Your task to perform on an android device: make emails show in primary in the gmail app Image 0: 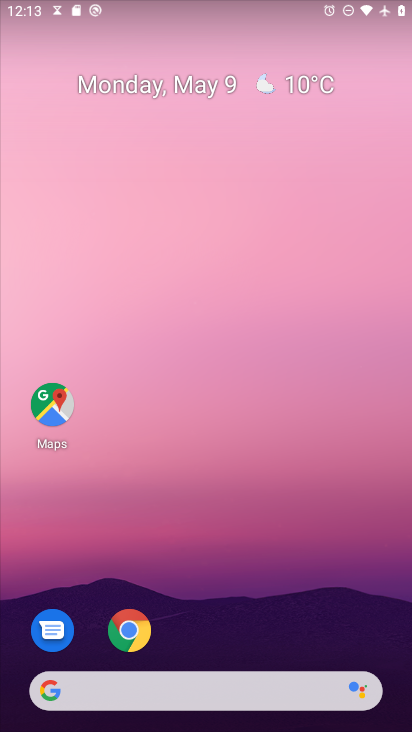
Step 0: drag from (162, 686) to (183, 200)
Your task to perform on an android device: make emails show in primary in the gmail app Image 1: 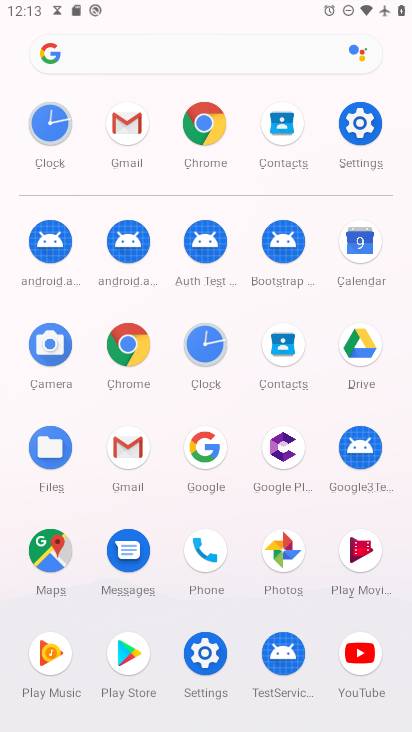
Step 1: click (131, 135)
Your task to perform on an android device: make emails show in primary in the gmail app Image 2: 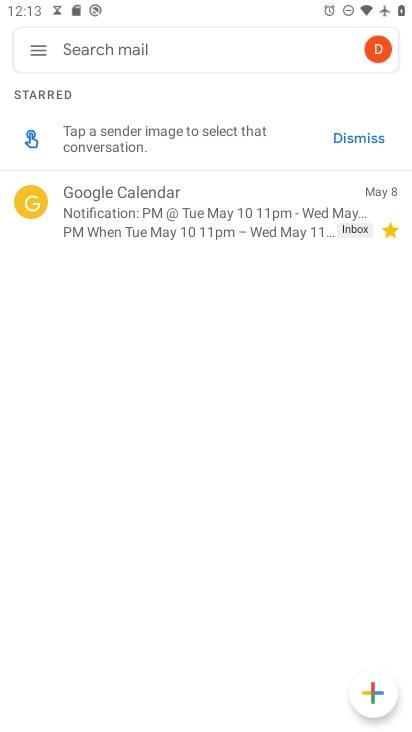
Step 2: click (40, 53)
Your task to perform on an android device: make emails show in primary in the gmail app Image 3: 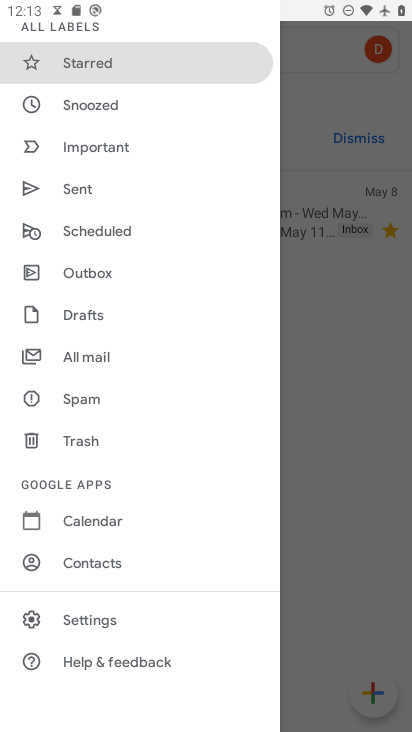
Step 3: click (106, 618)
Your task to perform on an android device: make emails show in primary in the gmail app Image 4: 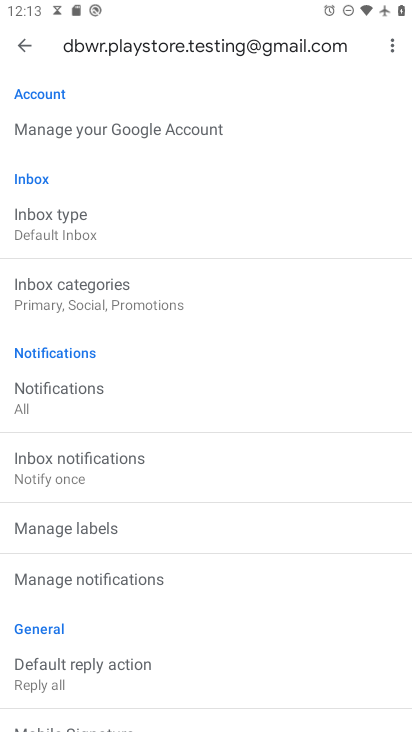
Step 4: click (34, 296)
Your task to perform on an android device: make emails show in primary in the gmail app Image 5: 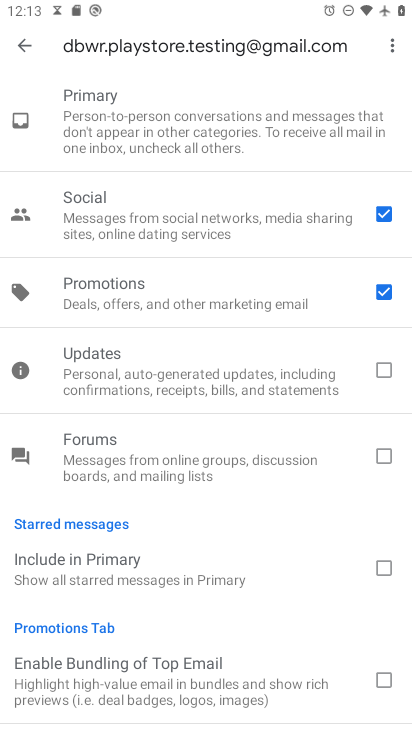
Step 5: click (380, 216)
Your task to perform on an android device: make emails show in primary in the gmail app Image 6: 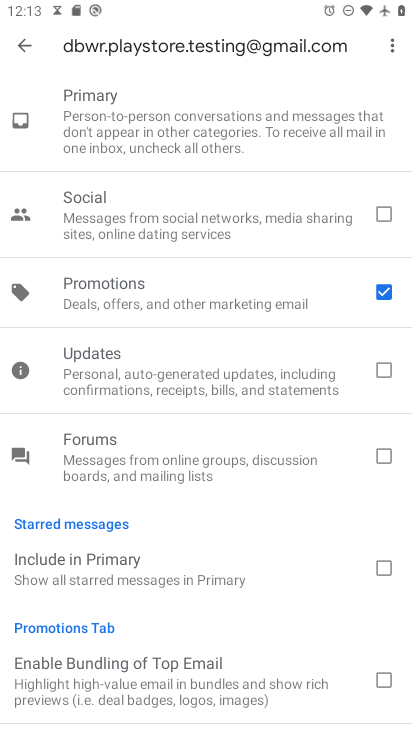
Step 6: click (377, 293)
Your task to perform on an android device: make emails show in primary in the gmail app Image 7: 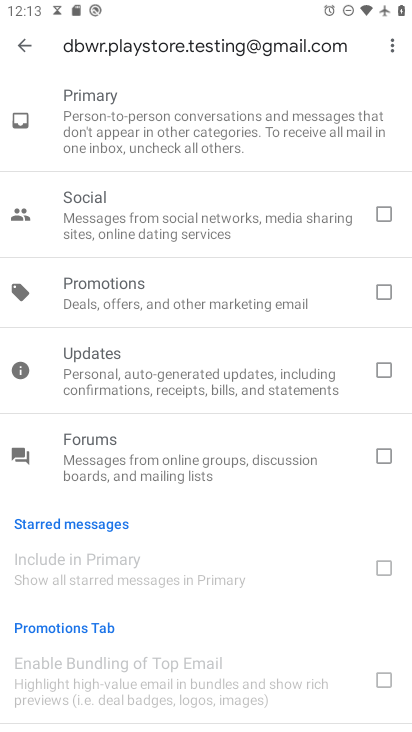
Step 7: click (26, 46)
Your task to perform on an android device: make emails show in primary in the gmail app Image 8: 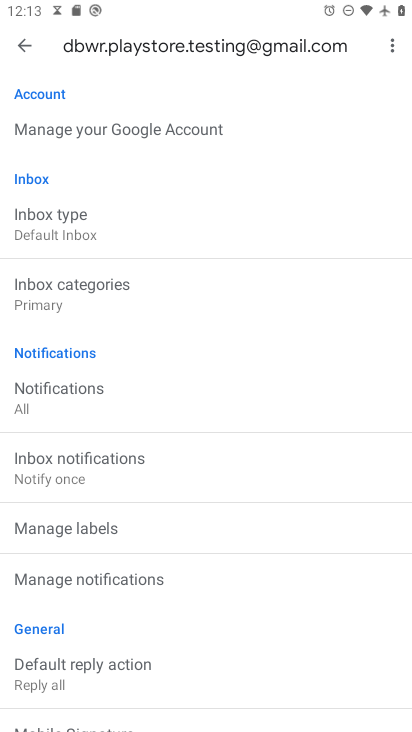
Step 8: task complete